Your task to perform on an android device: search for starred emails in the gmail app Image 0: 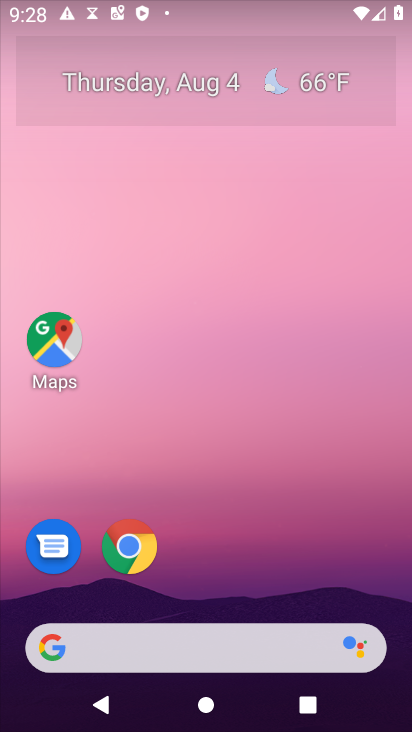
Step 0: drag from (209, 49) to (232, 85)
Your task to perform on an android device: search for starred emails in the gmail app Image 1: 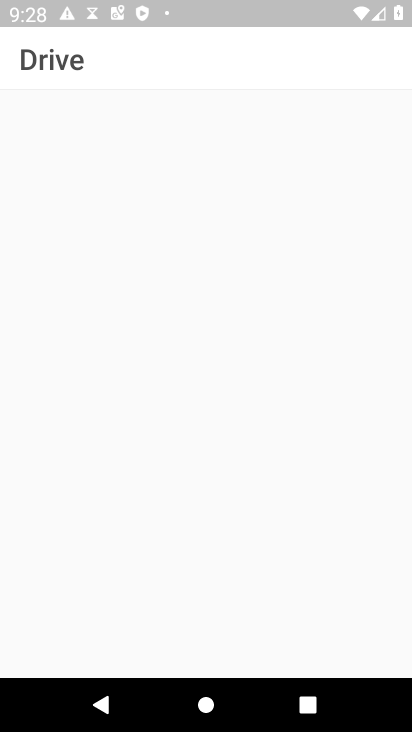
Step 1: press home button
Your task to perform on an android device: search for starred emails in the gmail app Image 2: 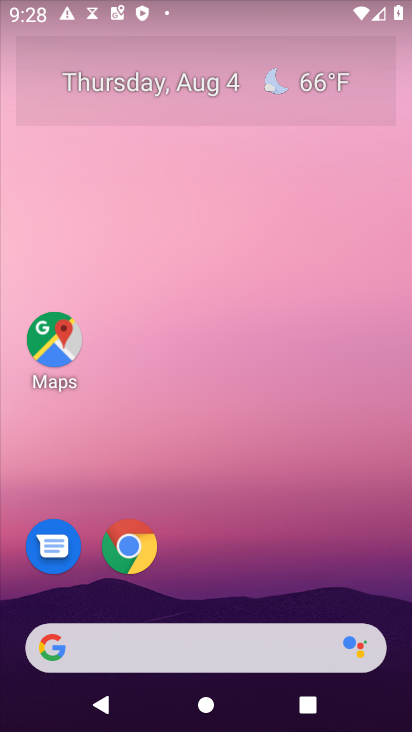
Step 2: drag from (239, 609) to (294, 41)
Your task to perform on an android device: search for starred emails in the gmail app Image 3: 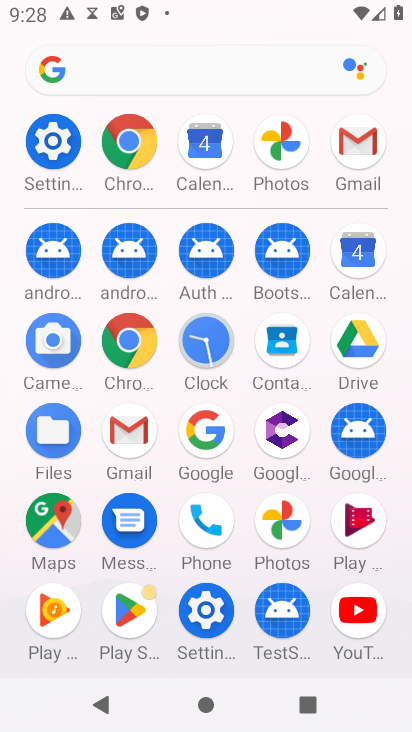
Step 3: click (370, 135)
Your task to perform on an android device: search for starred emails in the gmail app Image 4: 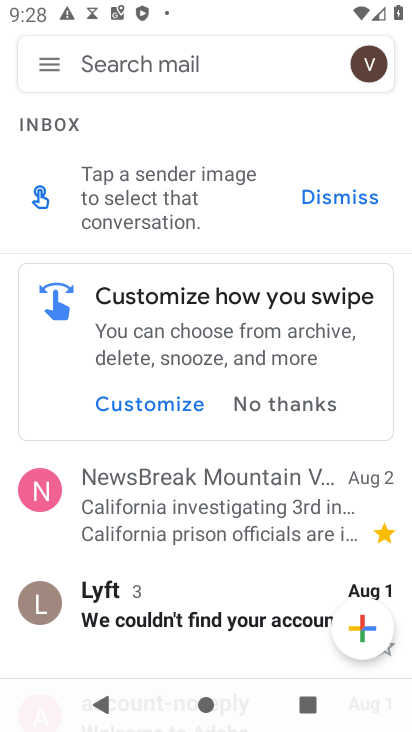
Step 4: click (40, 70)
Your task to perform on an android device: search for starred emails in the gmail app Image 5: 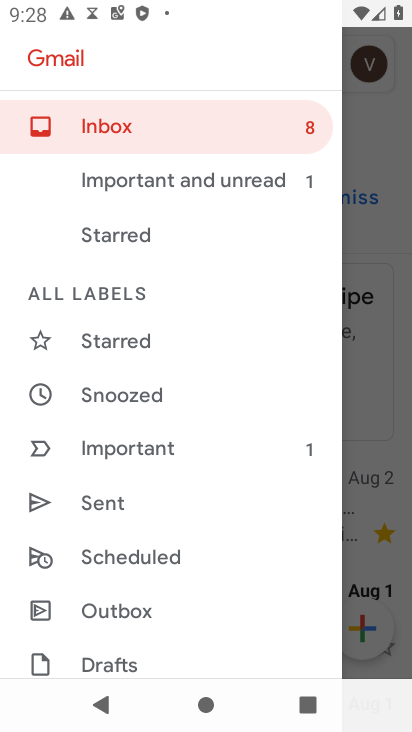
Step 5: click (122, 348)
Your task to perform on an android device: search for starred emails in the gmail app Image 6: 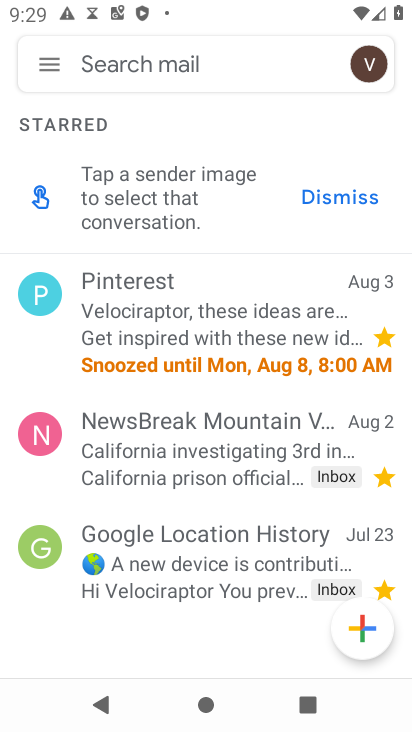
Step 6: task complete